Your task to perform on an android device: Open notification settings Image 0: 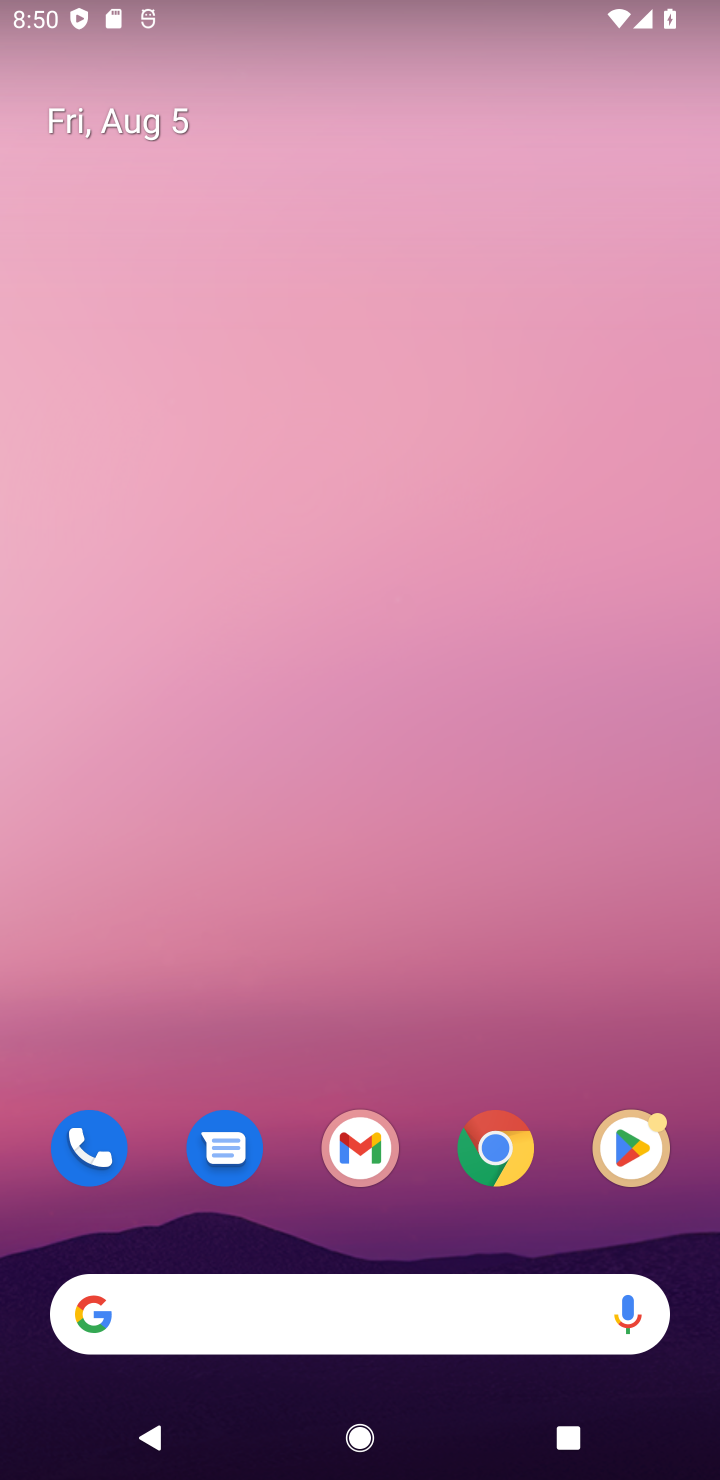
Step 0: task complete